Your task to perform on an android device: toggle show notifications on the lock screen Image 0: 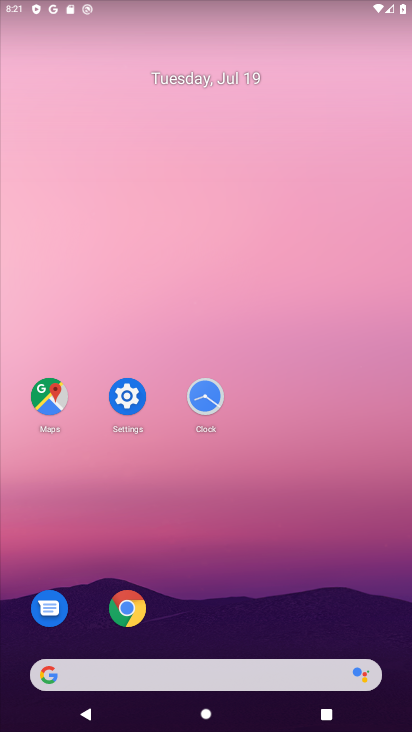
Step 0: drag from (394, 696) to (362, 207)
Your task to perform on an android device: toggle show notifications on the lock screen Image 1: 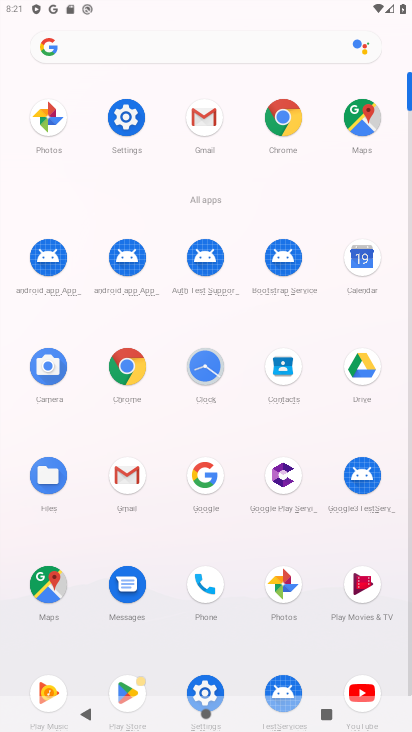
Step 1: click (115, 111)
Your task to perform on an android device: toggle show notifications on the lock screen Image 2: 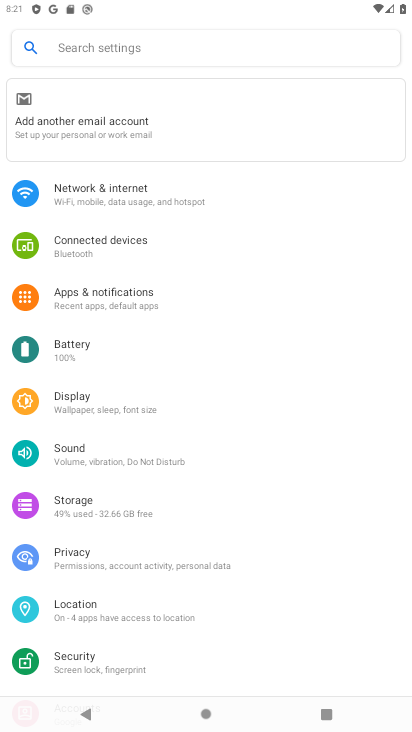
Step 2: click (90, 292)
Your task to perform on an android device: toggle show notifications on the lock screen Image 3: 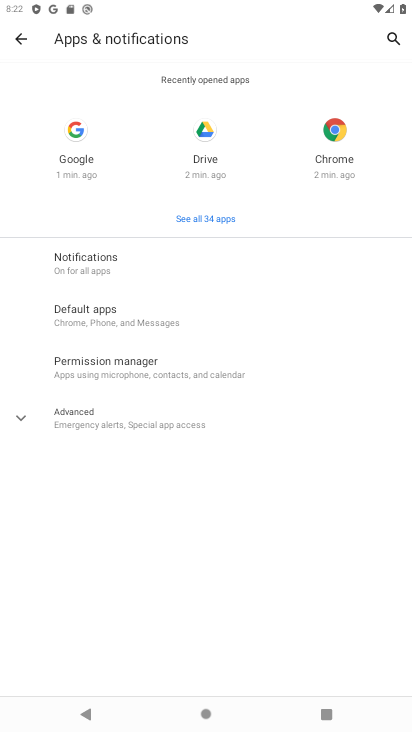
Step 3: click (63, 255)
Your task to perform on an android device: toggle show notifications on the lock screen Image 4: 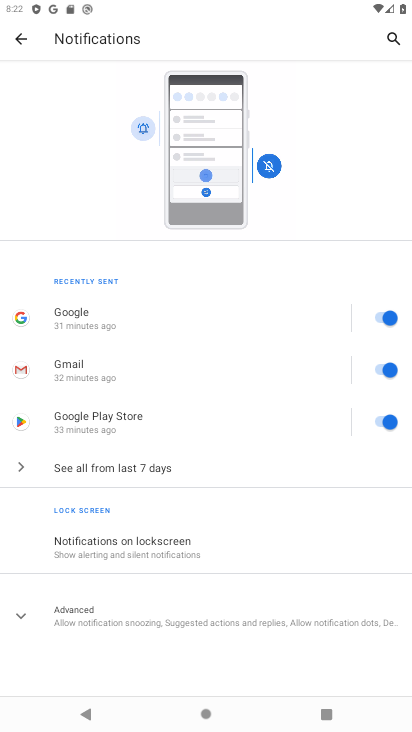
Step 4: click (123, 541)
Your task to perform on an android device: toggle show notifications on the lock screen Image 5: 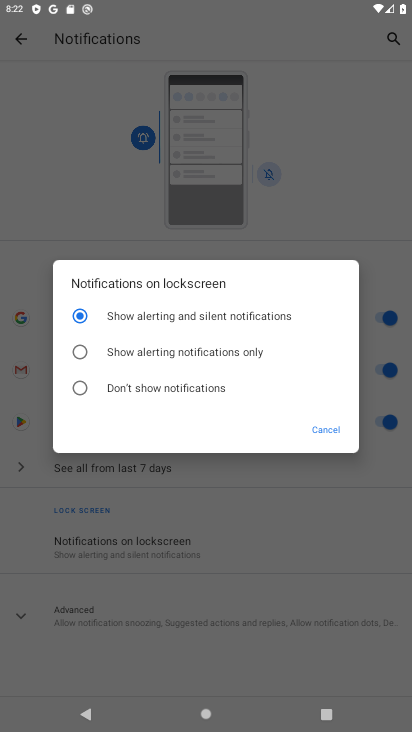
Step 5: click (121, 348)
Your task to perform on an android device: toggle show notifications on the lock screen Image 6: 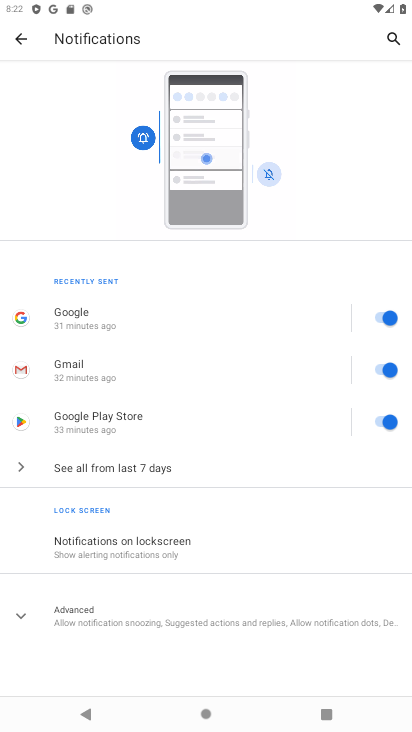
Step 6: task complete